Your task to perform on an android device: clear history in the chrome app Image 0: 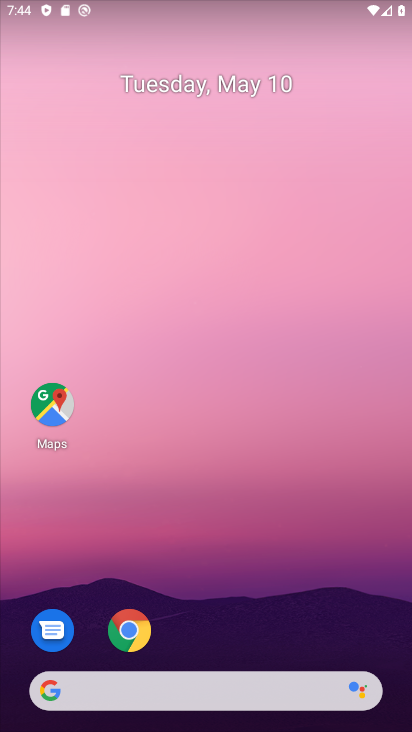
Step 0: click (130, 626)
Your task to perform on an android device: clear history in the chrome app Image 1: 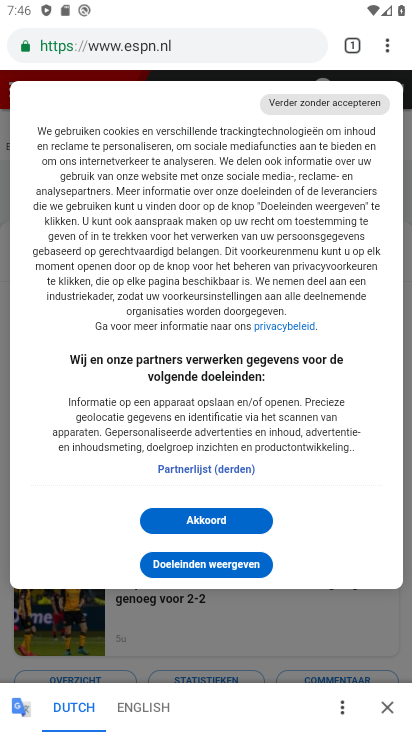
Step 1: task complete